Your task to perform on an android device: Open network settings Image 0: 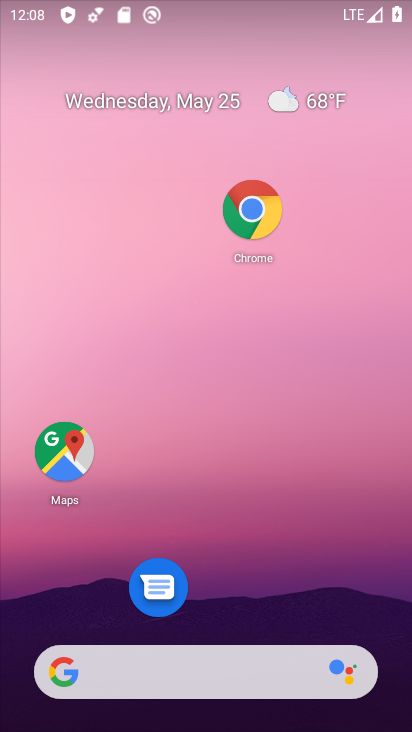
Step 0: press home button
Your task to perform on an android device: Open network settings Image 1: 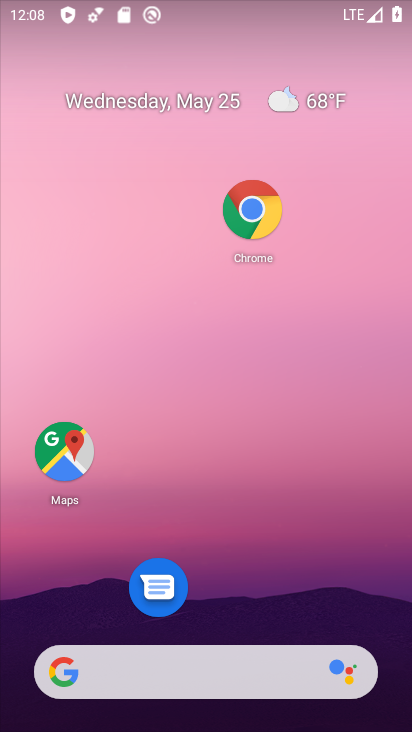
Step 1: drag from (226, 622) to (277, 35)
Your task to perform on an android device: Open network settings Image 2: 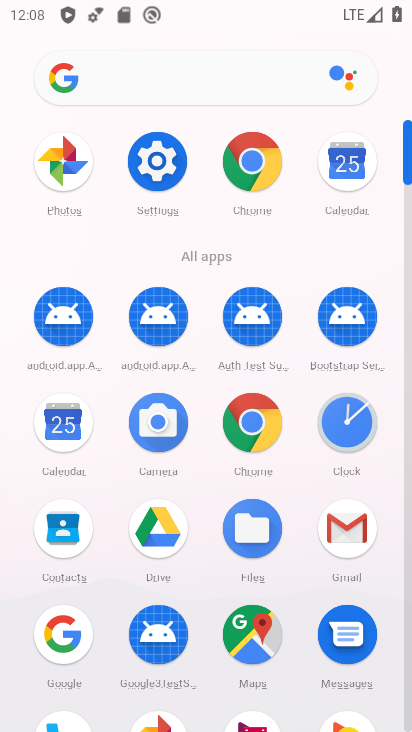
Step 2: click (154, 158)
Your task to perform on an android device: Open network settings Image 3: 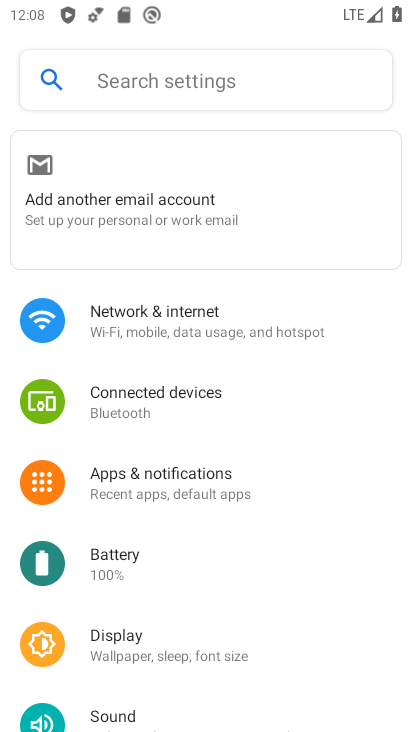
Step 3: click (159, 327)
Your task to perform on an android device: Open network settings Image 4: 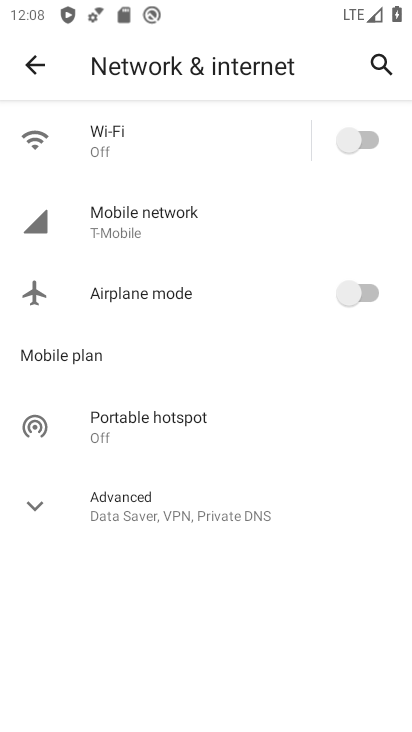
Step 4: click (29, 508)
Your task to perform on an android device: Open network settings Image 5: 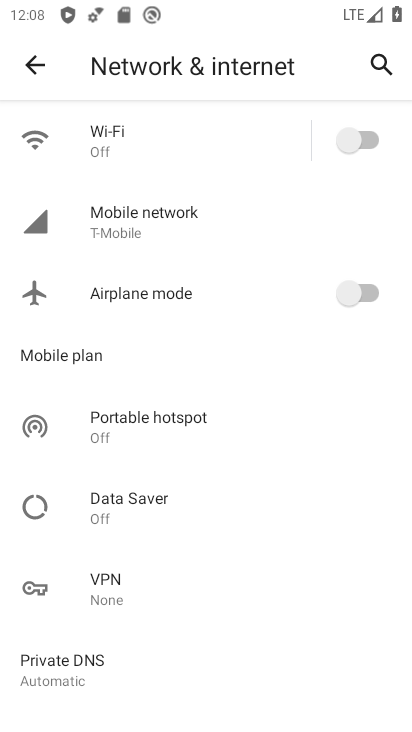
Step 5: task complete